Your task to perform on an android device: Go to calendar. Show me events next week Image 0: 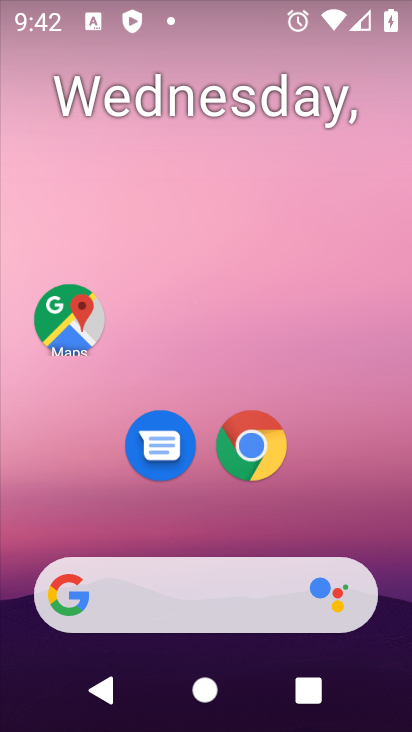
Step 0: drag from (382, 448) to (410, 57)
Your task to perform on an android device: Go to calendar. Show me events next week Image 1: 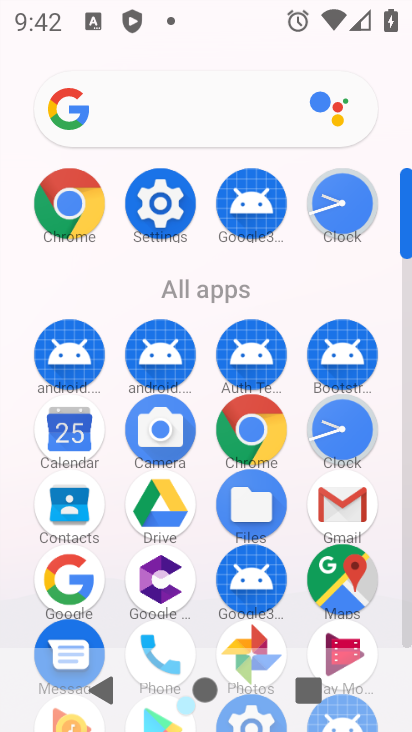
Step 1: click (327, 505)
Your task to perform on an android device: Go to calendar. Show me events next week Image 2: 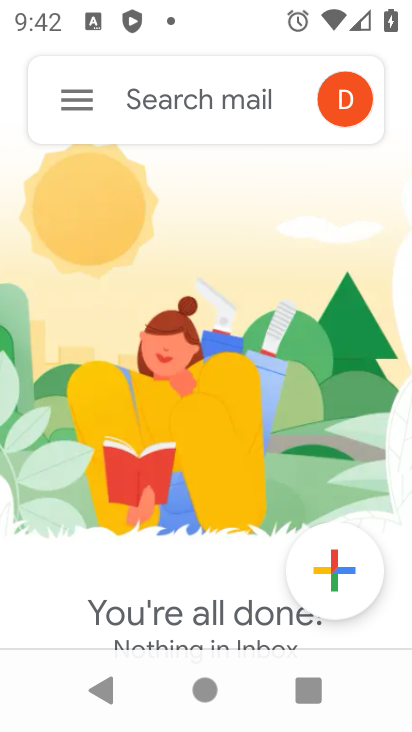
Step 2: press home button
Your task to perform on an android device: Go to calendar. Show me events next week Image 3: 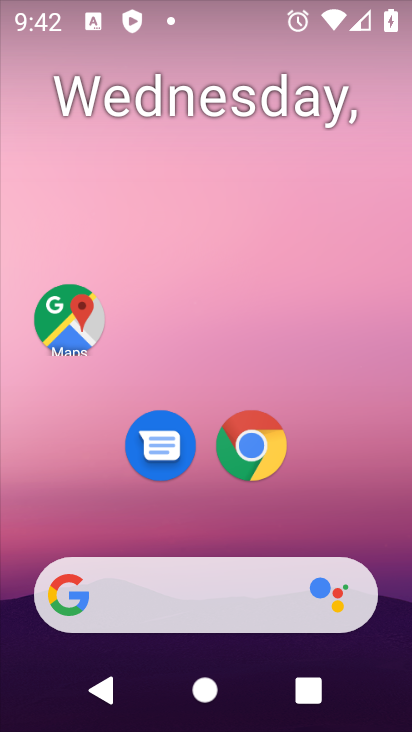
Step 3: drag from (358, 539) to (291, 42)
Your task to perform on an android device: Go to calendar. Show me events next week Image 4: 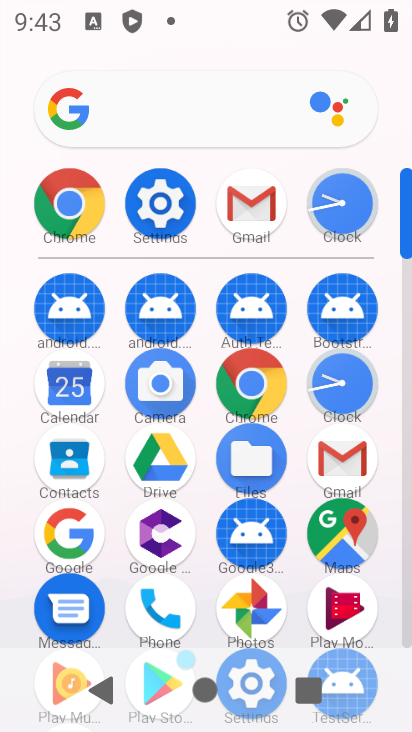
Step 4: click (63, 379)
Your task to perform on an android device: Go to calendar. Show me events next week Image 5: 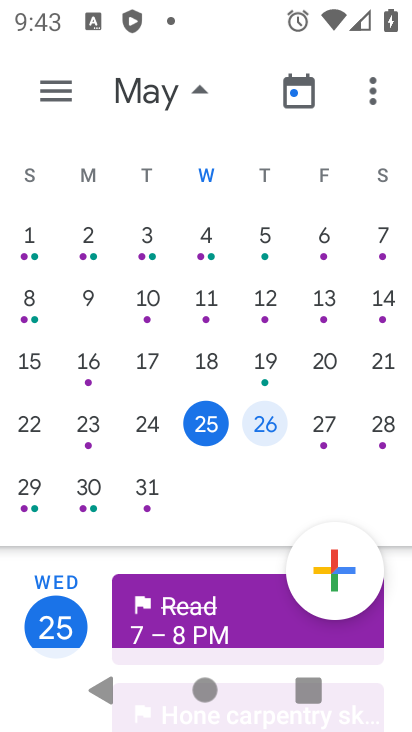
Step 5: drag from (204, 520) to (215, 486)
Your task to perform on an android device: Go to calendar. Show me events next week Image 6: 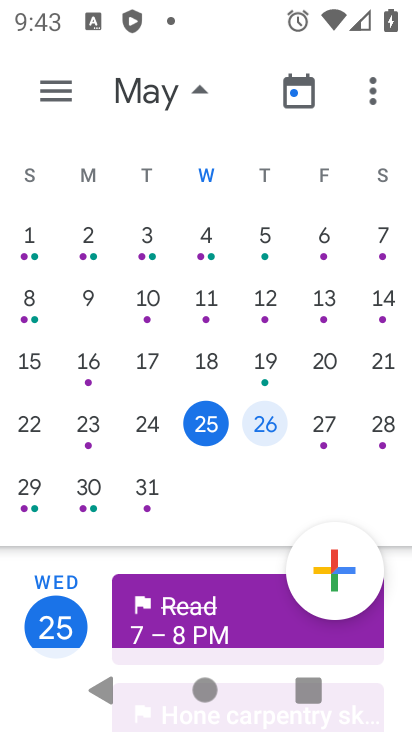
Step 6: drag from (329, 478) to (61, 687)
Your task to perform on an android device: Go to calendar. Show me events next week Image 7: 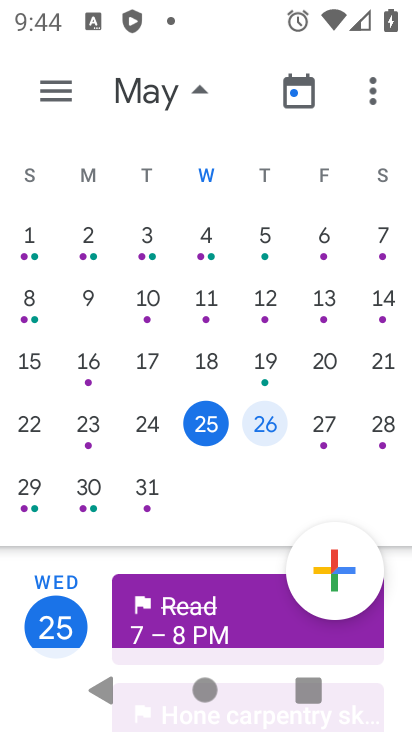
Step 7: click (264, 239)
Your task to perform on an android device: Go to calendar. Show me events next week Image 8: 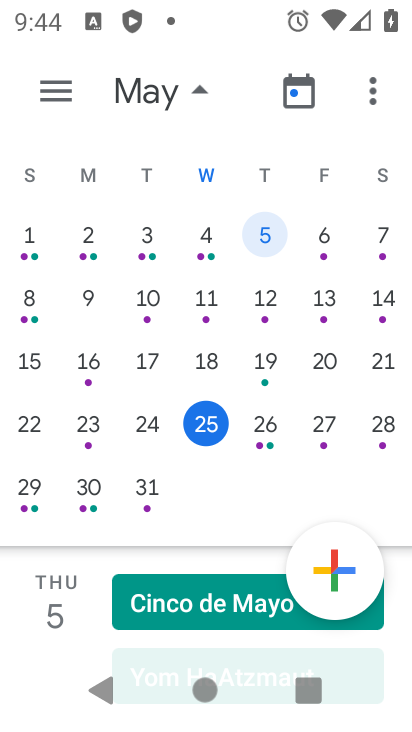
Step 8: task complete